Your task to perform on an android device: What's the weather going to be tomorrow? Image 0: 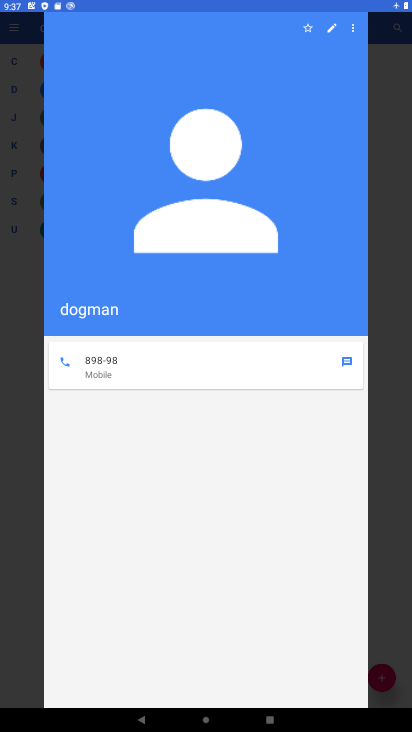
Step 0: press home button
Your task to perform on an android device: What's the weather going to be tomorrow? Image 1: 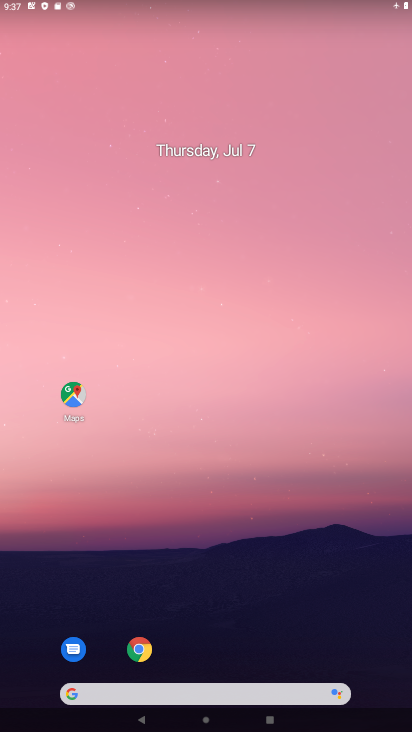
Step 1: drag from (234, 721) to (244, 50)
Your task to perform on an android device: What's the weather going to be tomorrow? Image 2: 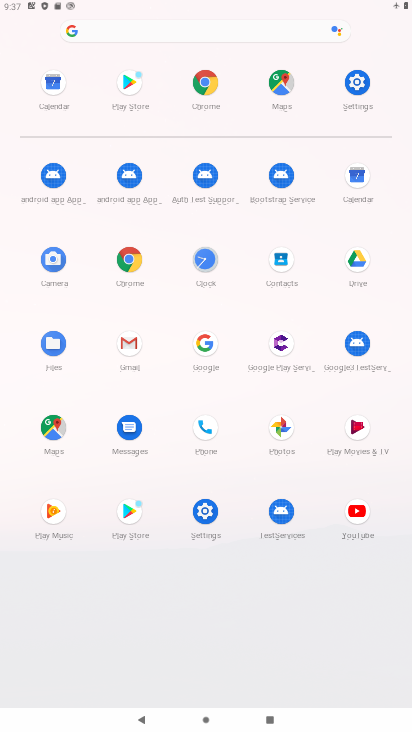
Step 2: click (204, 344)
Your task to perform on an android device: What's the weather going to be tomorrow? Image 3: 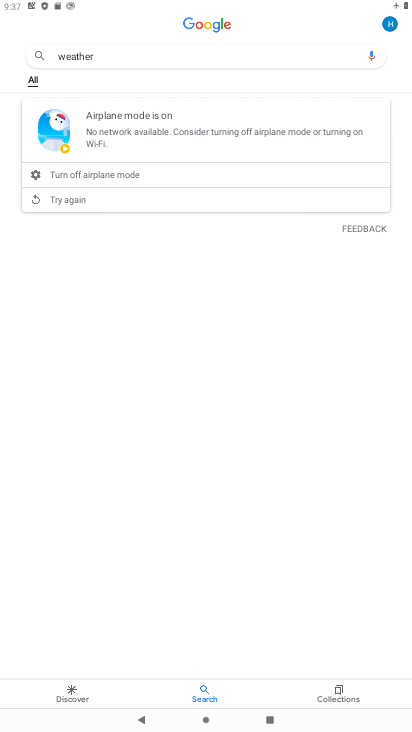
Step 3: task complete